Your task to perform on an android device: turn notification dots on Image 0: 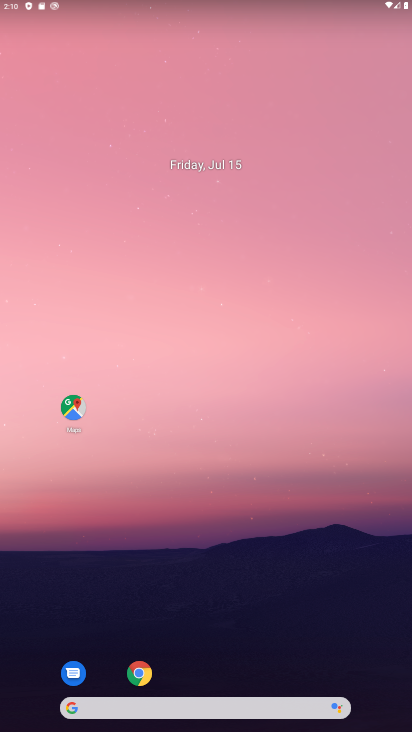
Step 0: drag from (260, 697) to (311, 79)
Your task to perform on an android device: turn notification dots on Image 1: 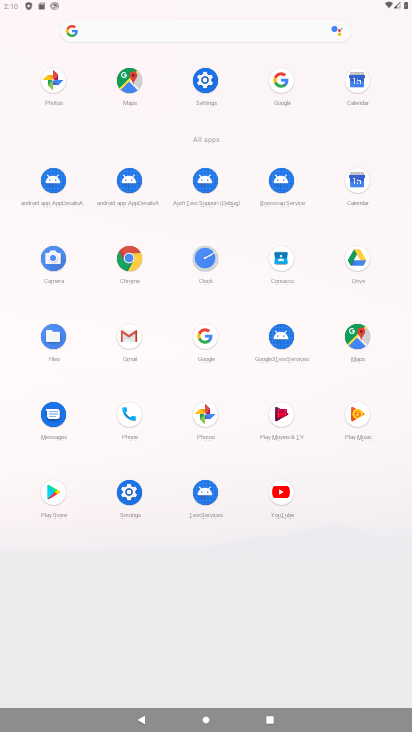
Step 1: click (126, 479)
Your task to perform on an android device: turn notification dots on Image 2: 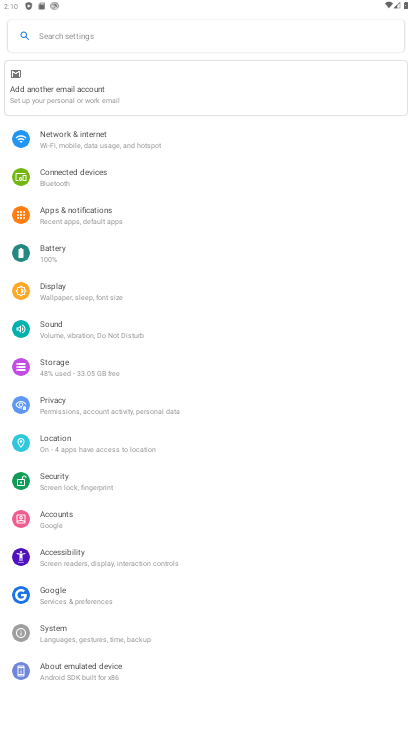
Step 2: click (64, 218)
Your task to perform on an android device: turn notification dots on Image 3: 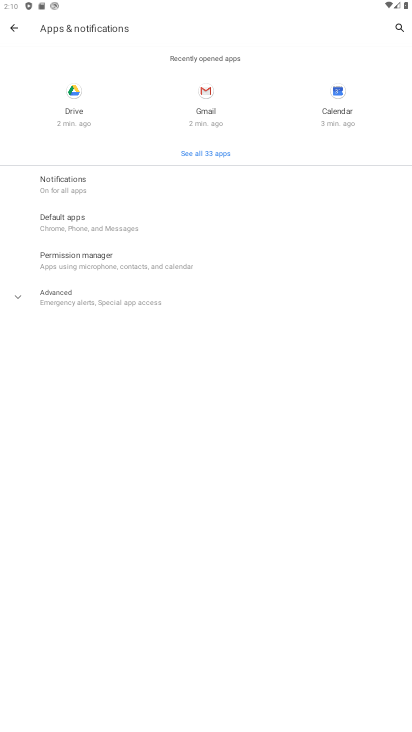
Step 3: click (55, 183)
Your task to perform on an android device: turn notification dots on Image 4: 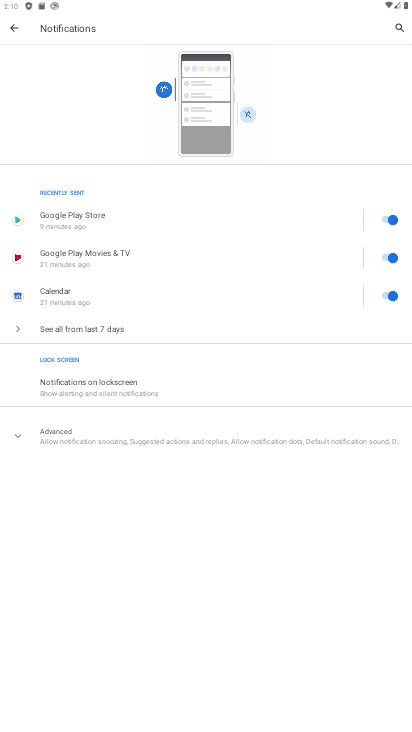
Step 4: click (53, 433)
Your task to perform on an android device: turn notification dots on Image 5: 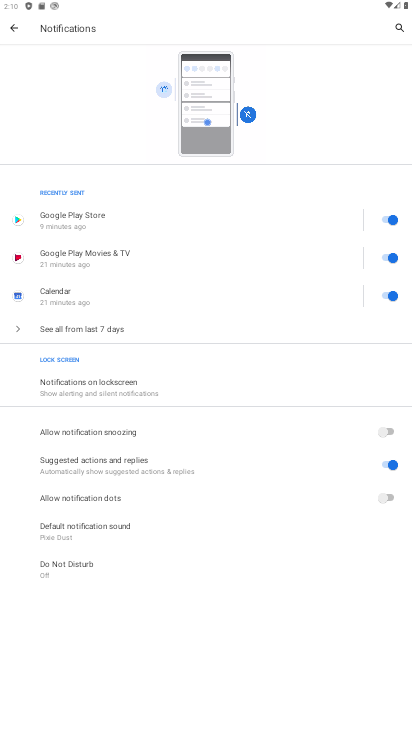
Step 5: click (390, 497)
Your task to perform on an android device: turn notification dots on Image 6: 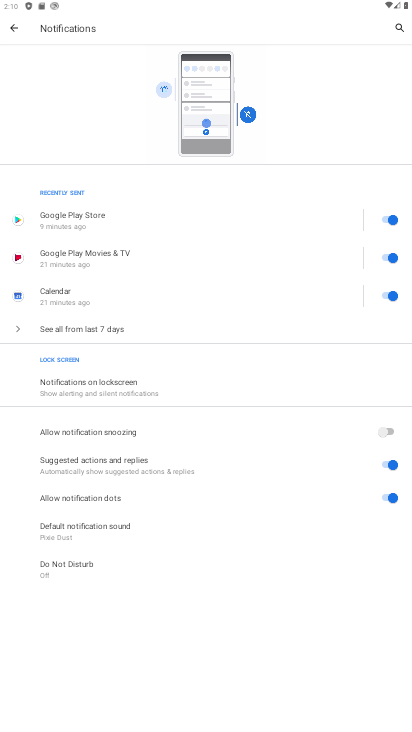
Step 6: task complete